Your task to perform on an android device: turn on the 24-hour format for clock Image 0: 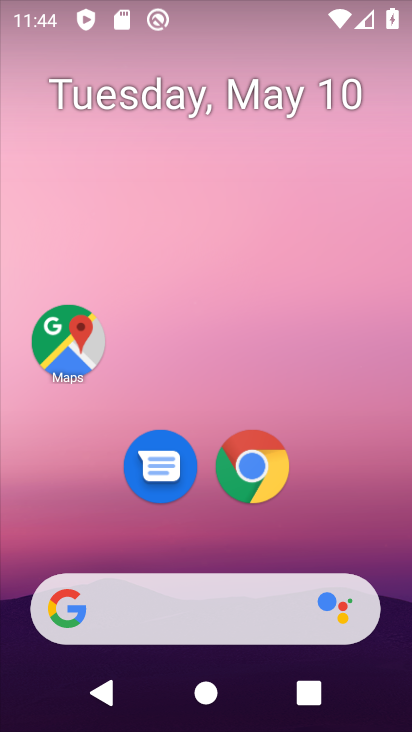
Step 0: drag from (146, 569) to (237, 74)
Your task to perform on an android device: turn on the 24-hour format for clock Image 1: 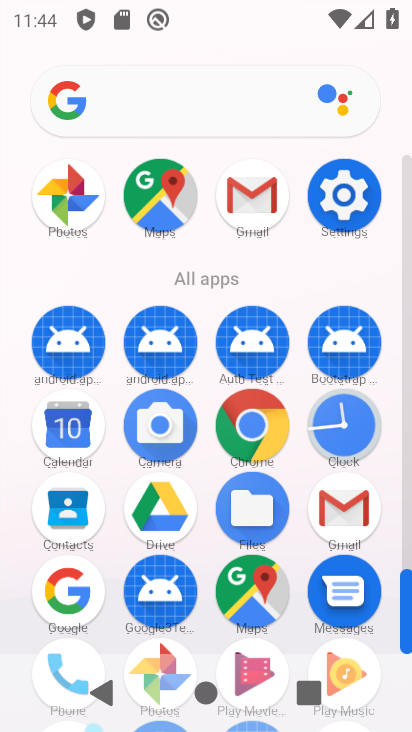
Step 1: click (347, 425)
Your task to perform on an android device: turn on the 24-hour format for clock Image 2: 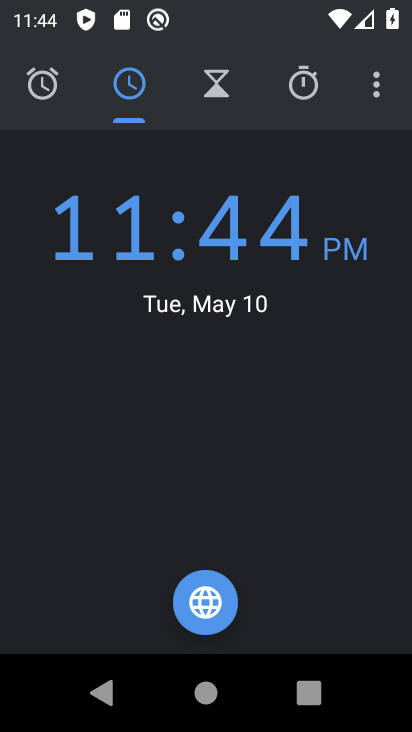
Step 2: click (379, 97)
Your task to perform on an android device: turn on the 24-hour format for clock Image 3: 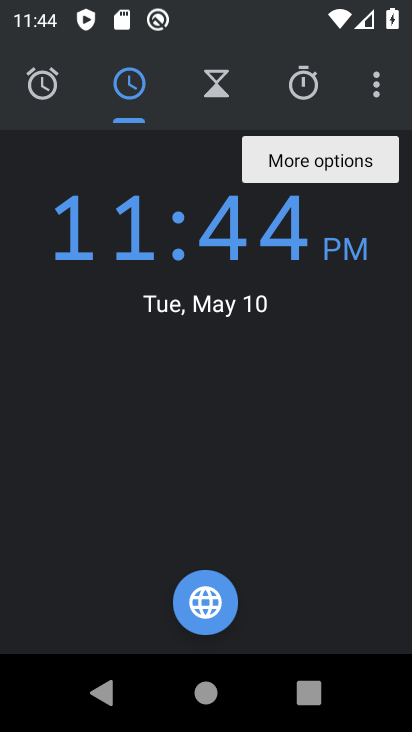
Step 3: click (377, 88)
Your task to perform on an android device: turn on the 24-hour format for clock Image 4: 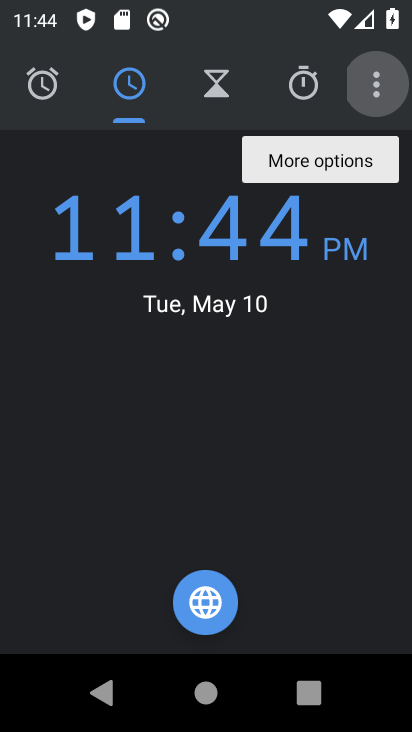
Step 4: click (375, 78)
Your task to perform on an android device: turn on the 24-hour format for clock Image 5: 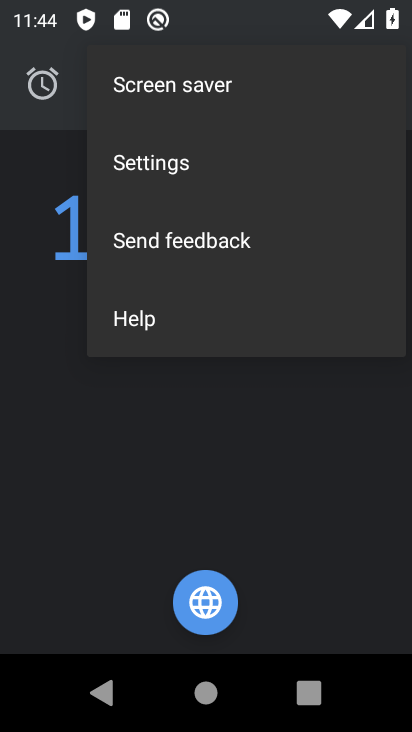
Step 5: click (239, 165)
Your task to perform on an android device: turn on the 24-hour format for clock Image 6: 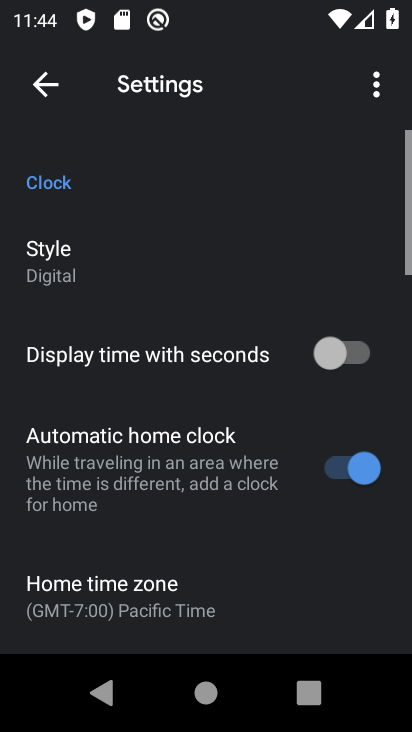
Step 6: drag from (147, 565) to (217, 308)
Your task to perform on an android device: turn on the 24-hour format for clock Image 7: 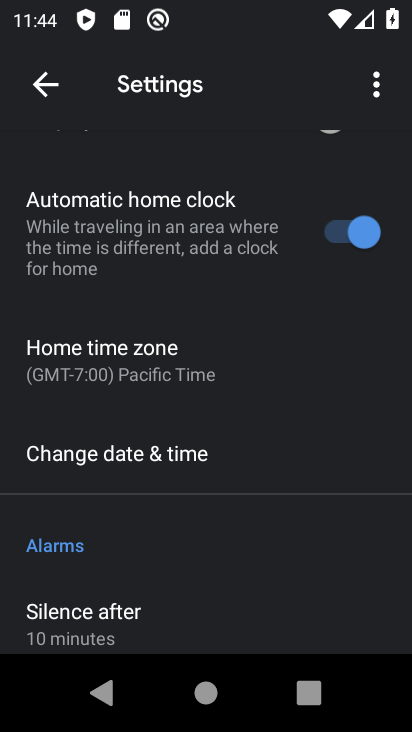
Step 7: click (205, 462)
Your task to perform on an android device: turn on the 24-hour format for clock Image 8: 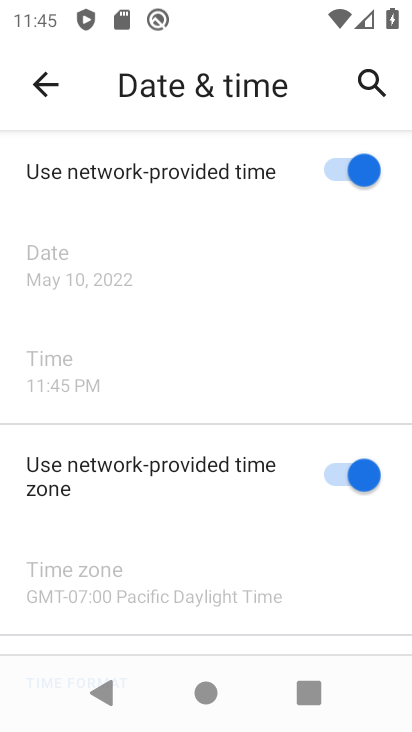
Step 8: drag from (204, 558) to (289, 242)
Your task to perform on an android device: turn on the 24-hour format for clock Image 9: 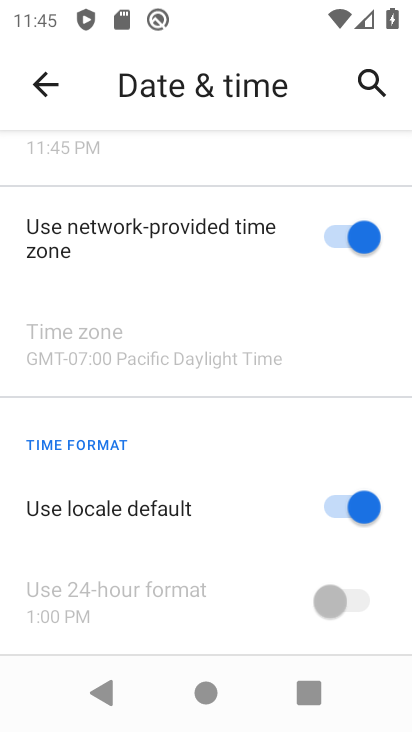
Step 9: click (353, 498)
Your task to perform on an android device: turn on the 24-hour format for clock Image 10: 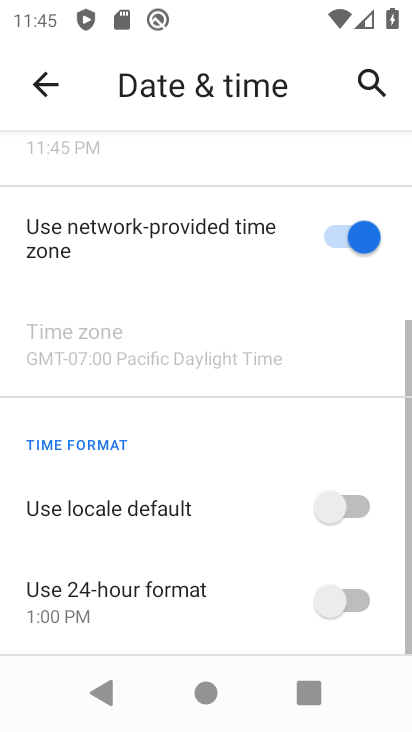
Step 10: click (363, 601)
Your task to perform on an android device: turn on the 24-hour format for clock Image 11: 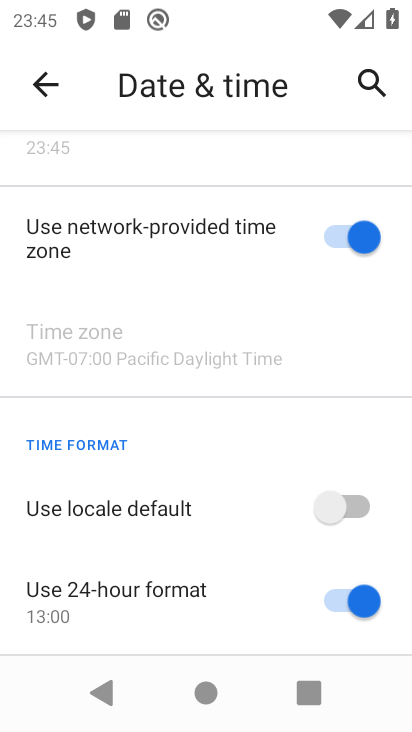
Step 11: task complete